Your task to perform on an android device: turn on priority inbox in the gmail app Image 0: 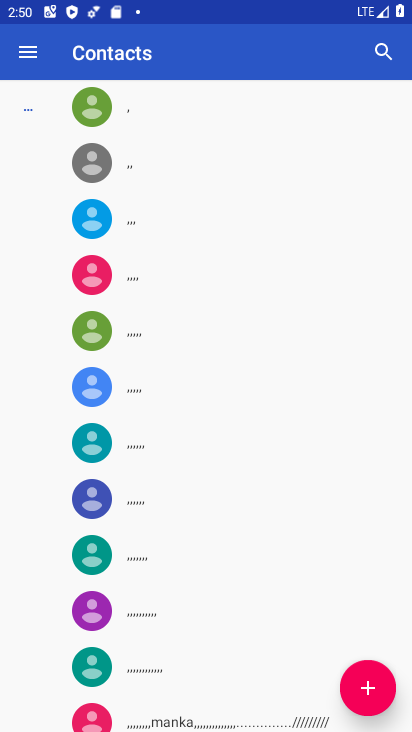
Step 0: press home button
Your task to perform on an android device: turn on priority inbox in the gmail app Image 1: 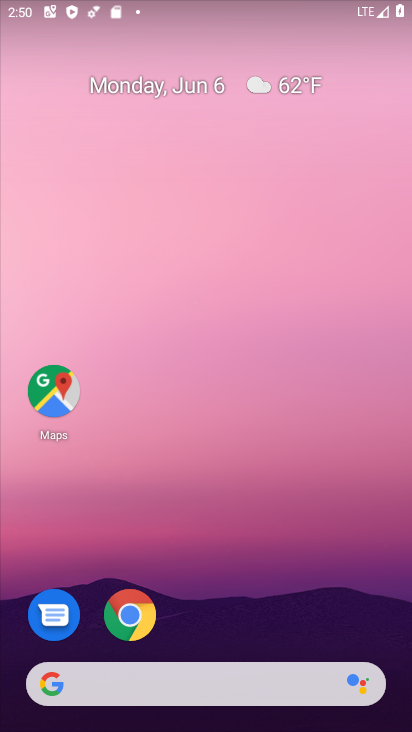
Step 1: drag from (300, 701) to (330, 15)
Your task to perform on an android device: turn on priority inbox in the gmail app Image 2: 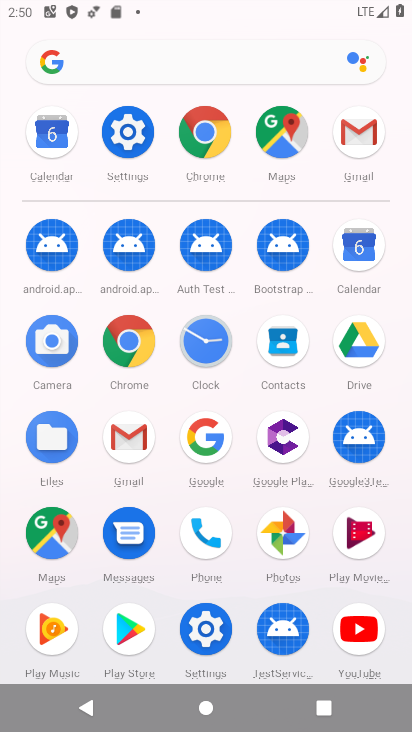
Step 2: click (95, 428)
Your task to perform on an android device: turn on priority inbox in the gmail app Image 3: 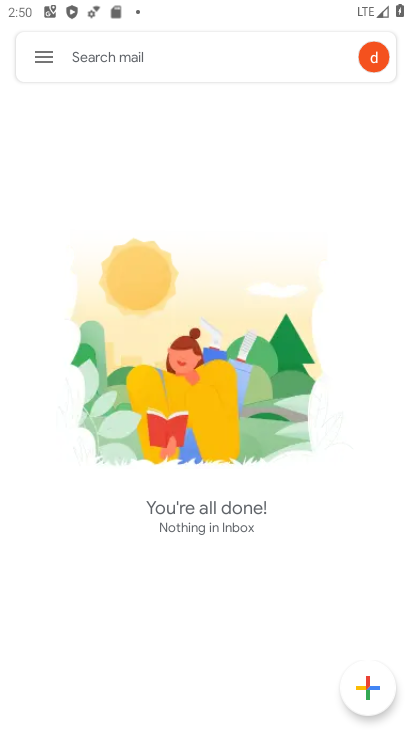
Step 3: click (38, 57)
Your task to perform on an android device: turn on priority inbox in the gmail app Image 4: 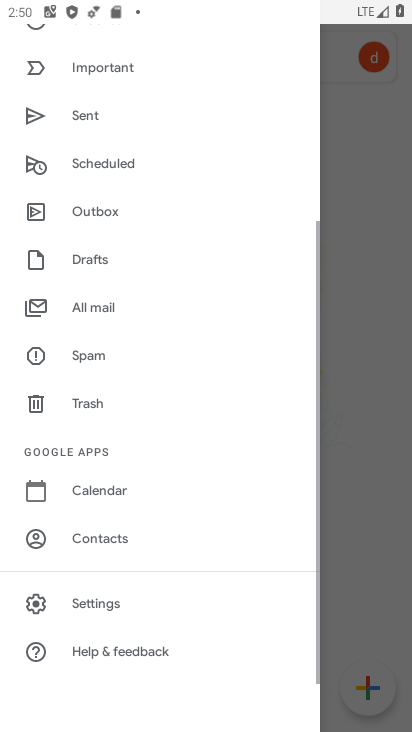
Step 4: click (163, 607)
Your task to perform on an android device: turn on priority inbox in the gmail app Image 5: 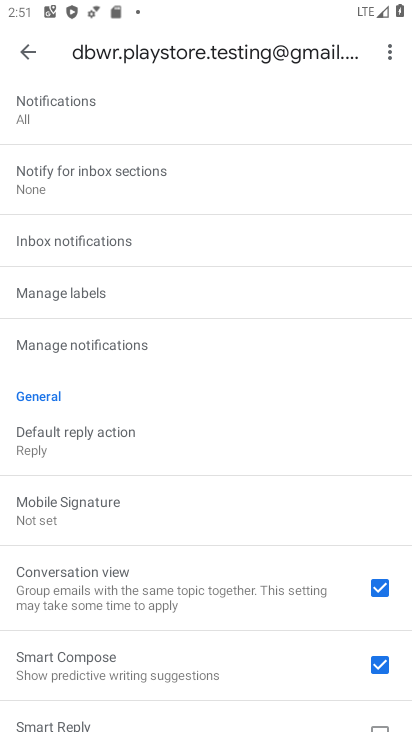
Step 5: drag from (189, 342) to (183, 671)
Your task to perform on an android device: turn on priority inbox in the gmail app Image 6: 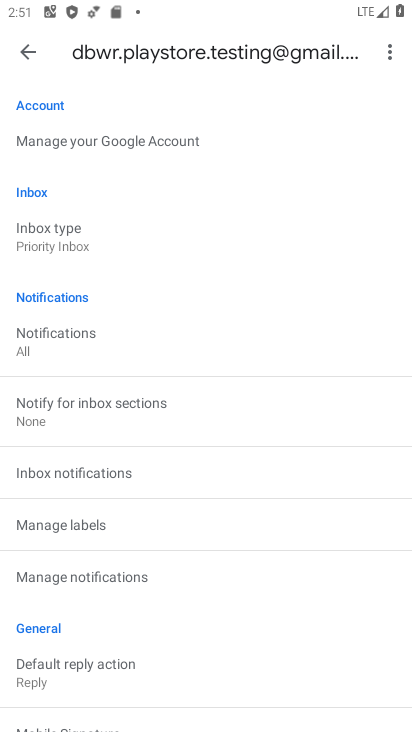
Step 6: click (90, 232)
Your task to perform on an android device: turn on priority inbox in the gmail app Image 7: 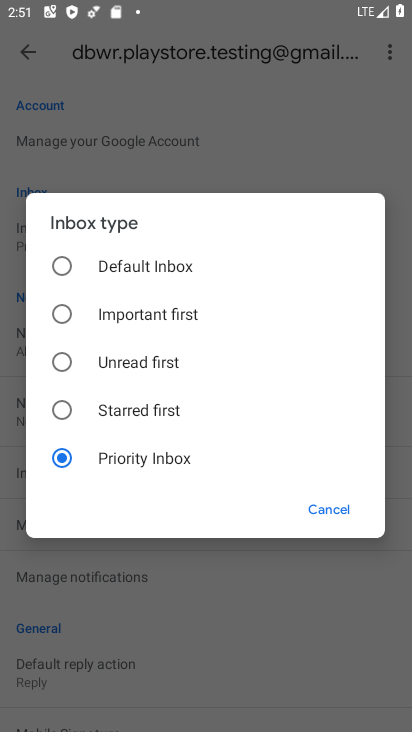
Step 7: click (394, 142)
Your task to perform on an android device: turn on priority inbox in the gmail app Image 8: 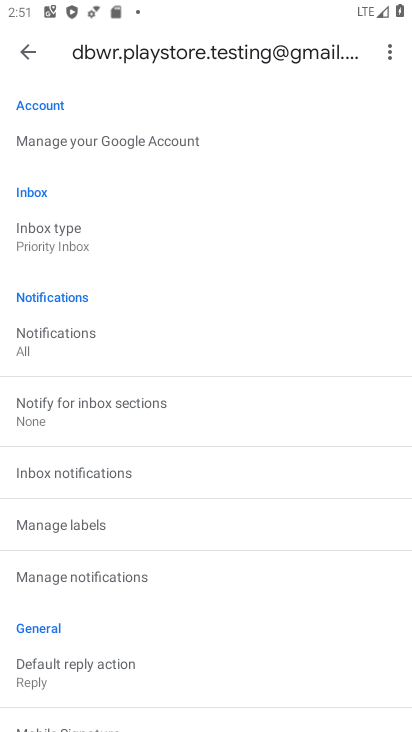
Step 8: task complete